Your task to perform on an android device: Go to internet settings Image 0: 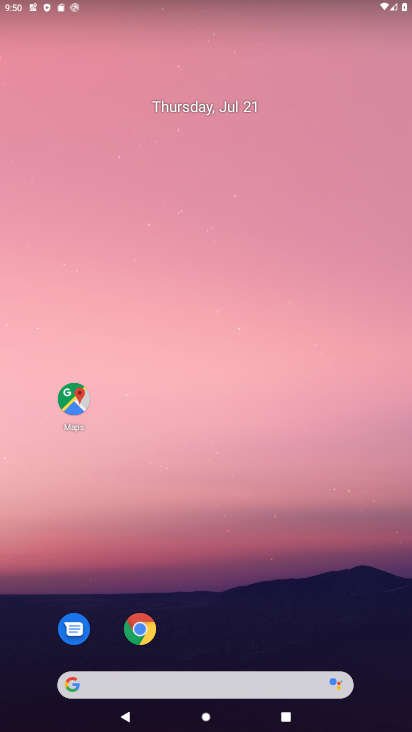
Step 0: drag from (318, 603) to (216, 698)
Your task to perform on an android device: Go to internet settings Image 1: 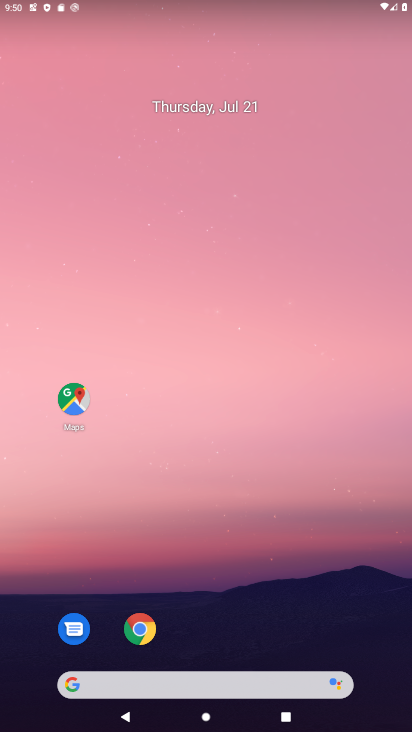
Step 1: drag from (198, 8) to (258, 674)
Your task to perform on an android device: Go to internet settings Image 2: 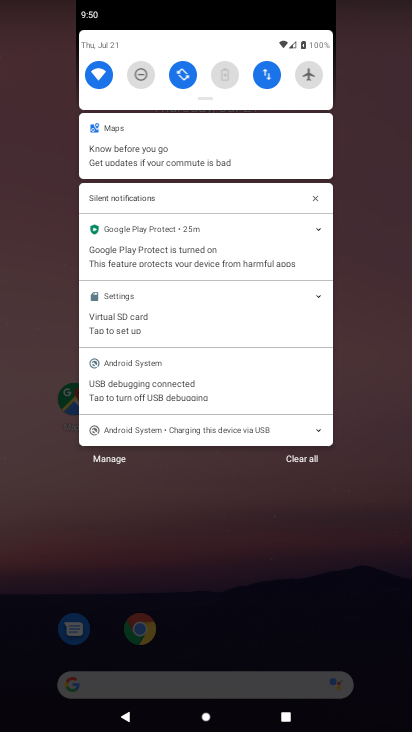
Step 2: click (261, 67)
Your task to perform on an android device: Go to internet settings Image 3: 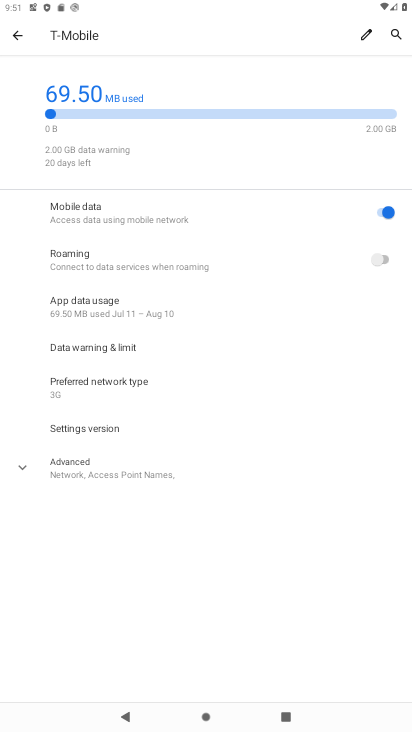
Step 3: task complete